Your task to perform on an android device: Go to network settings Image 0: 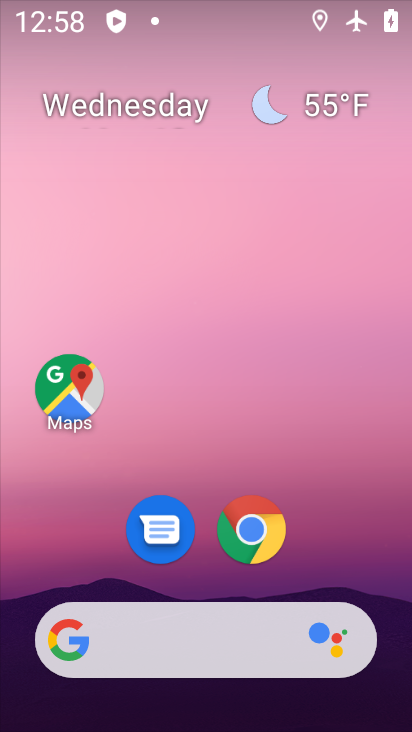
Step 0: drag from (211, 703) to (212, 91)
Your task to perform on an android device: Go to network settings Image 1: 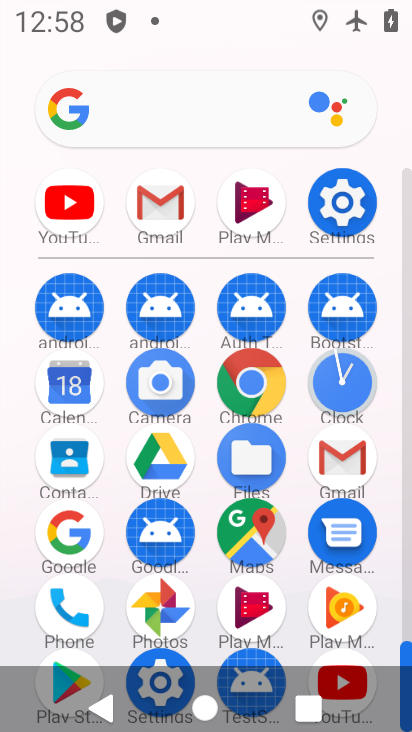
Step 1: click (343, 207)
Your task to perform on an android device: Go to network settings Image 2: 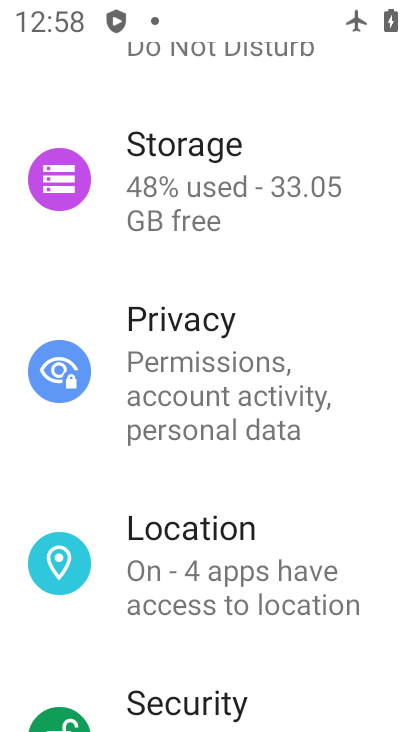
Step 2: drag from (257, 139) to (252, 544)
Your task to perform on an android device: Go to network settings Image 3: 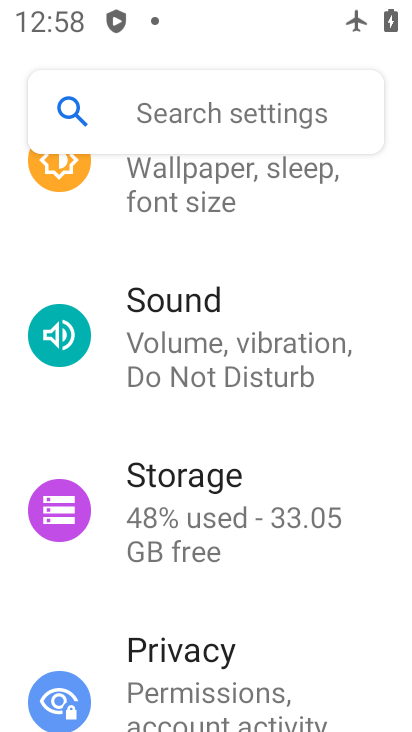
Step 3: drag from (282, 199) to (282, 551)
Your task to perform on an android device: Go to network settings Image 4: 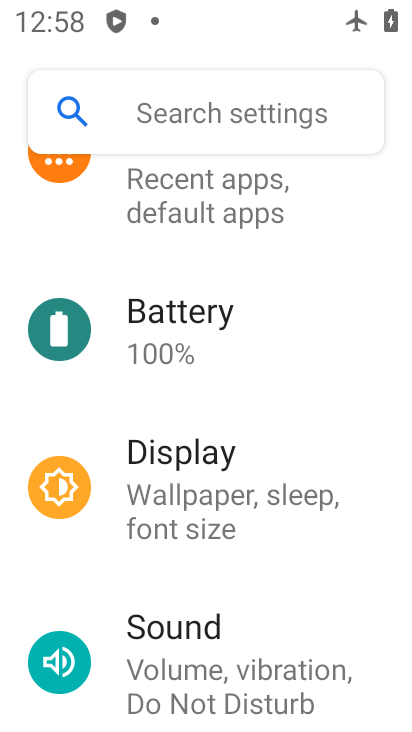
Step 4: drag from (253, 190) to (247, 524)
Your task to perform on an android device: Go to network settings Image 5: 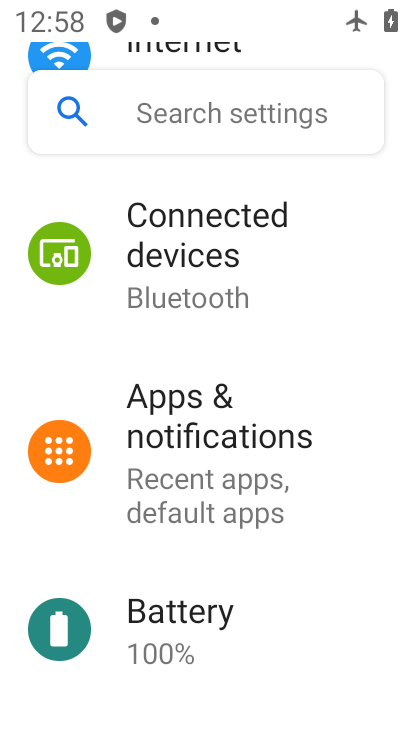
Step 5: drag from (255, 189) to (256, 627)
Your task to perform on an android device: Go to network settings Image 6: 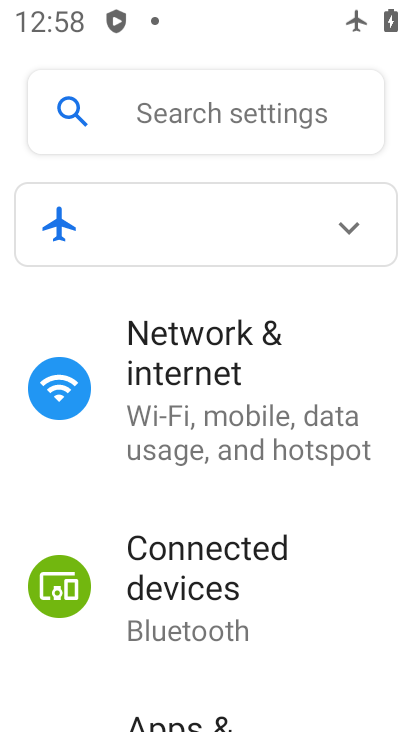
Step 6: click (171, 370)
Your task to perform on an android device: Go to network settings Image 7: 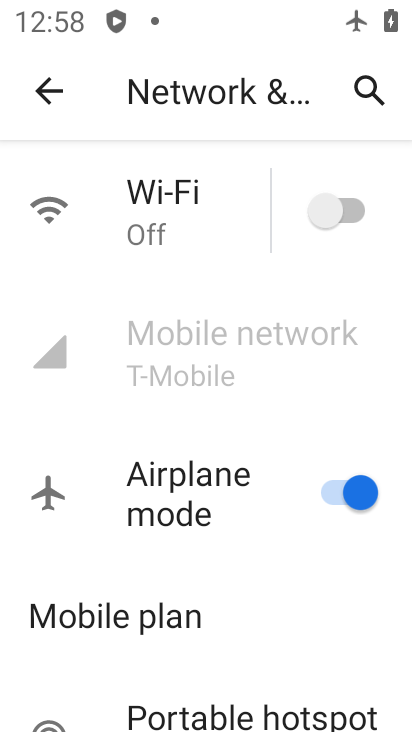
Step 7: click (329, 486)
Your task to perform on an android device: Go to network settings Image 8: 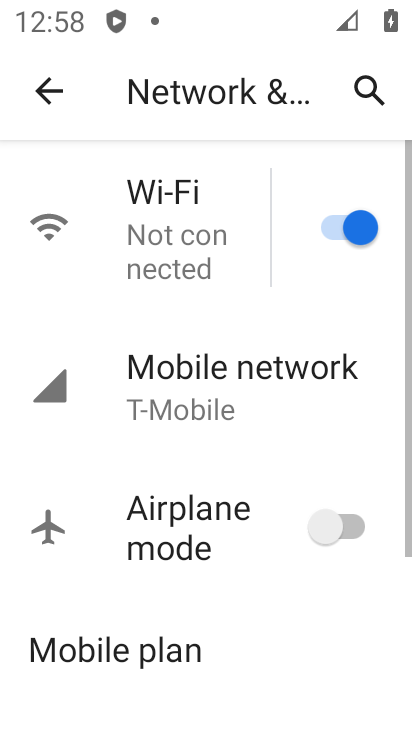
Step 8: click (190, 350)
Your task to perform on an android device: Go to network settings Image 9: 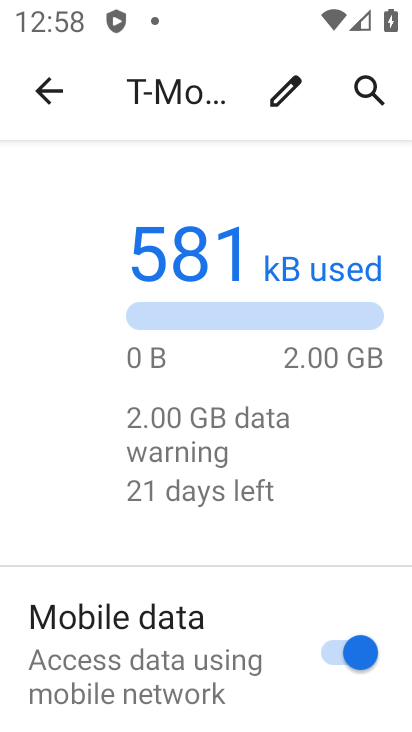
Step 9: task complete